Your task to perform on an android device: Play the latest video from the Washington Post Image 0: 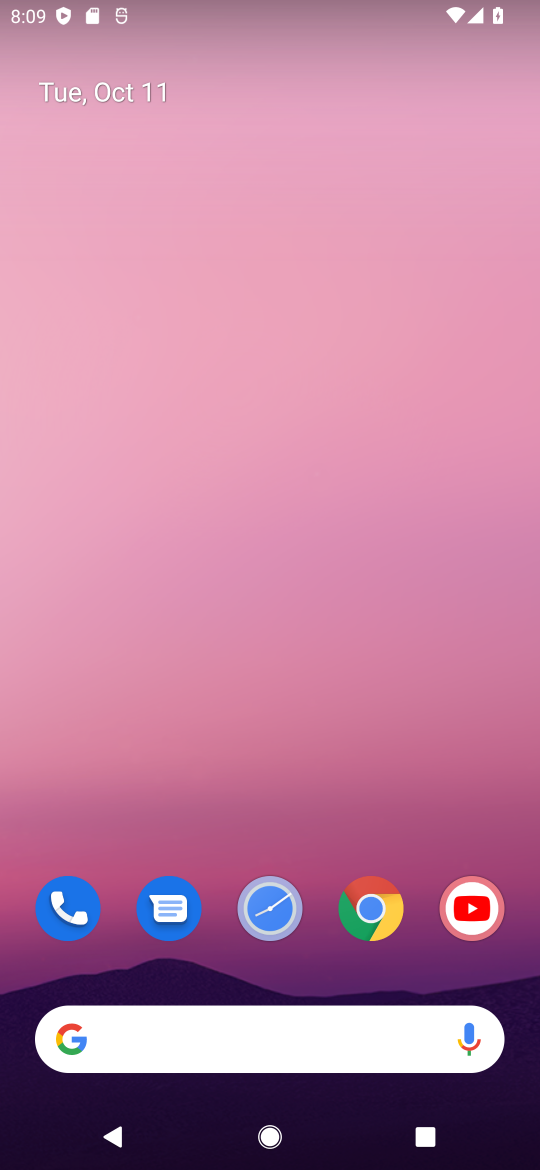
Step 0: click (172, 1024)
Your task to perform on an android device: Play the latest video from the Washington Post Image 1: 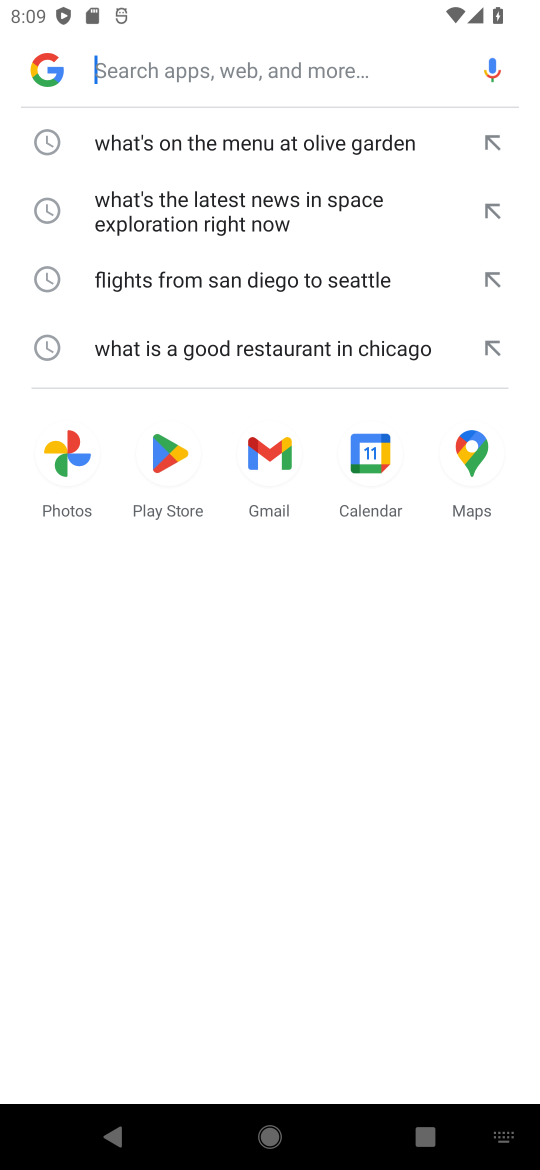
Step 1: type "Play the latest video from the Washington Post"
Your task to perform on an android device: Play the latest video from the Washington Post Image 2: 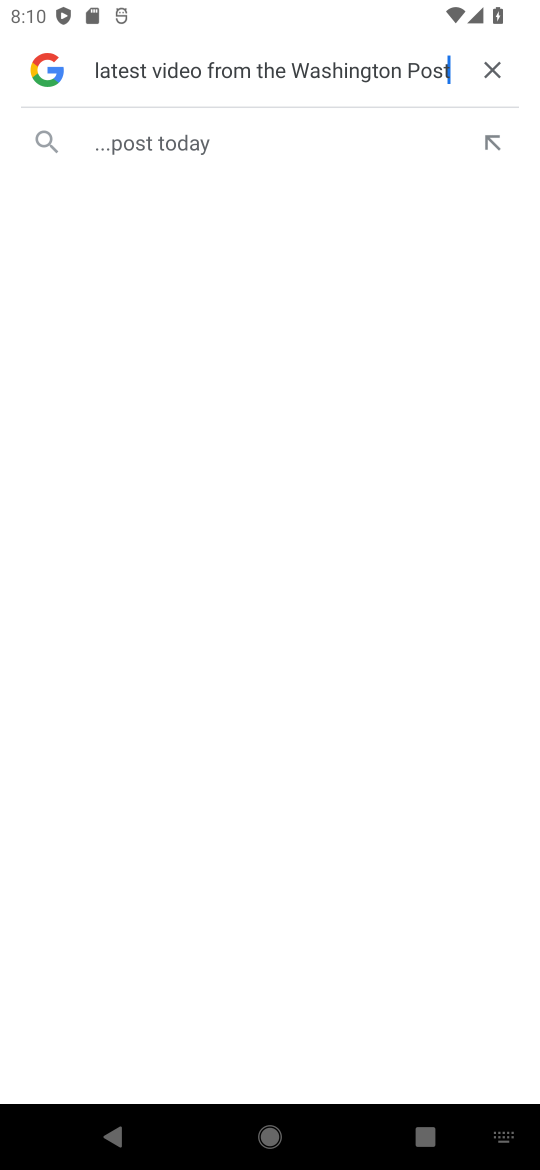
Step 2: click (159, 137)
Your task to perform on an android device: Play the latest video from the Washington Post Image 3: 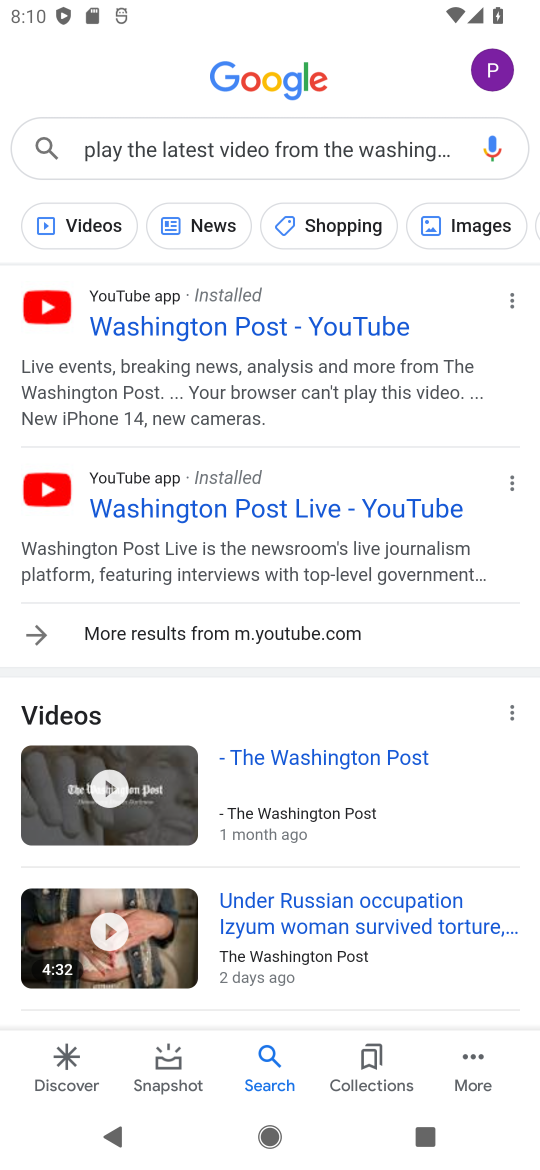
Step 3: click (210, 325)
Your task to perform on an android device: Play the latest video from the Washington Post Image 4: 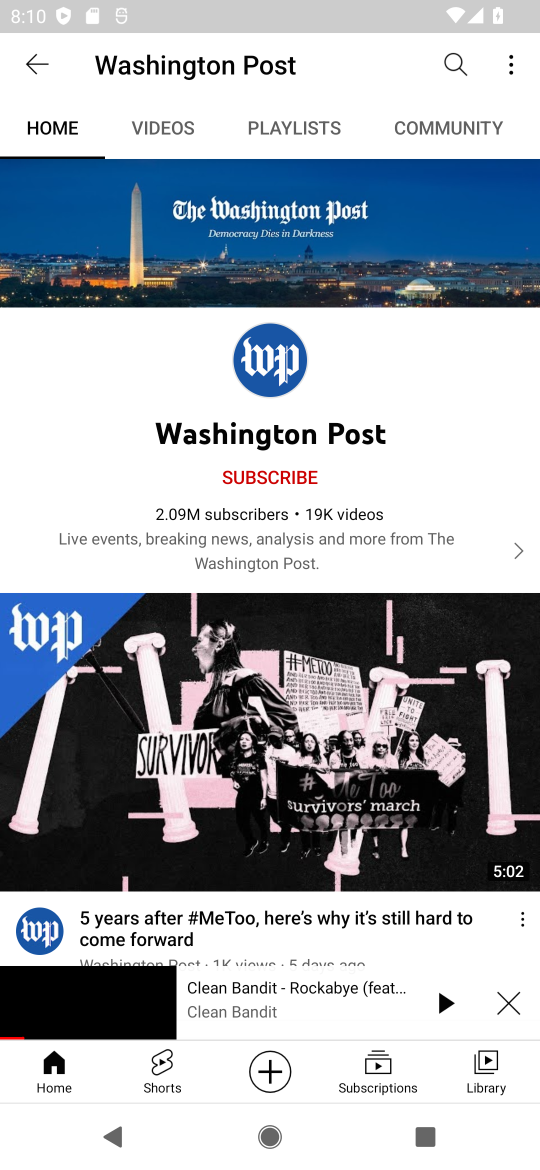
Step 4: click (508, 999)
Your task to perform on an android device: Play the latest video from the Washington Post Image 5: 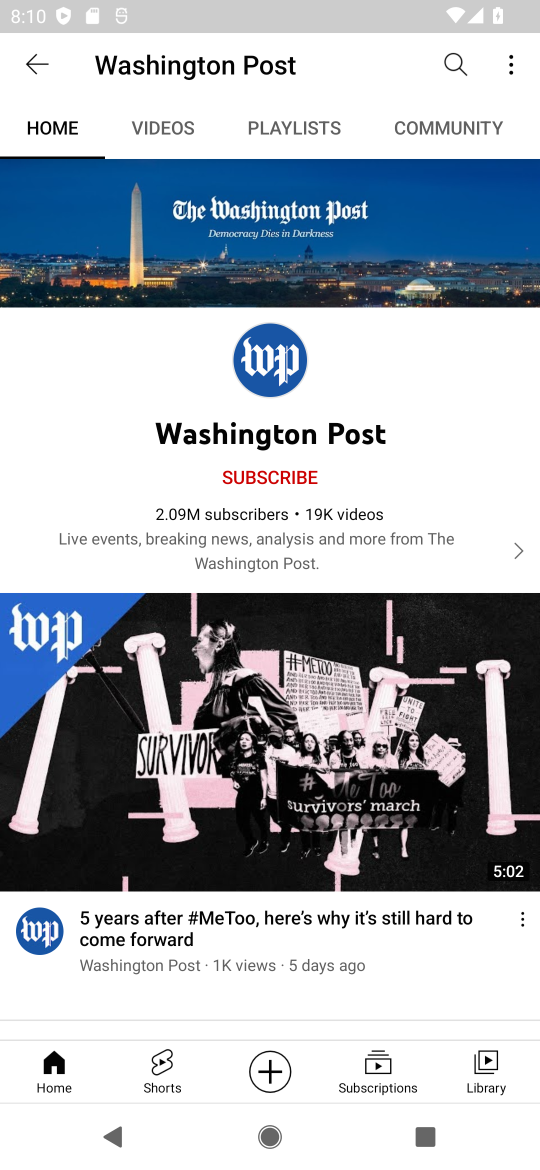
Step 5: click (343, 809)
Your task to perform on an android device: Play the latest video from the Washington Post Image 6: 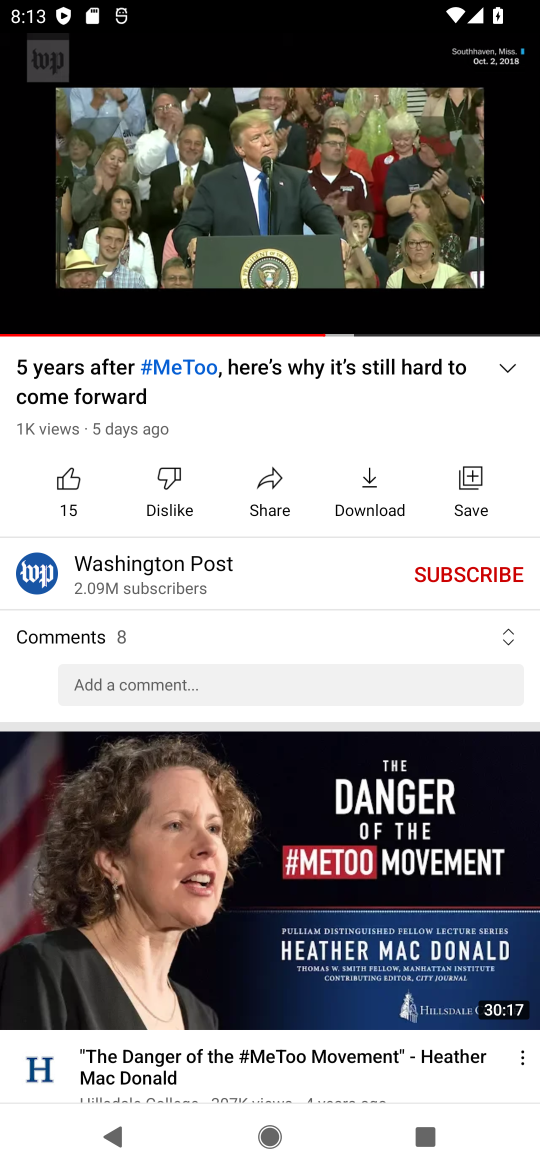
Step 6: task complete